Your task to perform on an android device: Do I have any events today? Image 0: 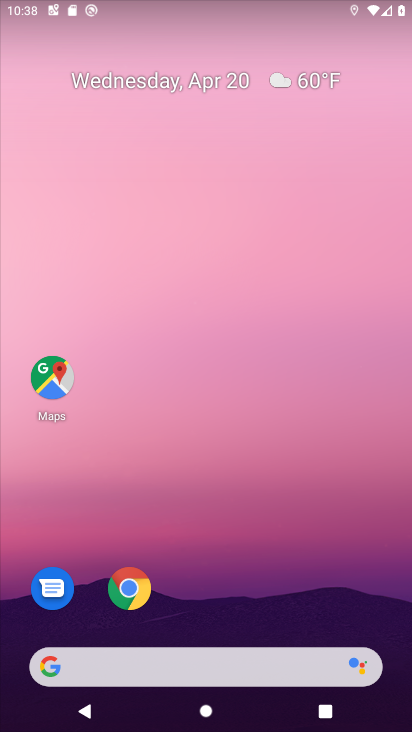
Step 0: drag from (203, 591) to (230, 62)
Your task to perform on an android device: Do I have any events today? Image 1: 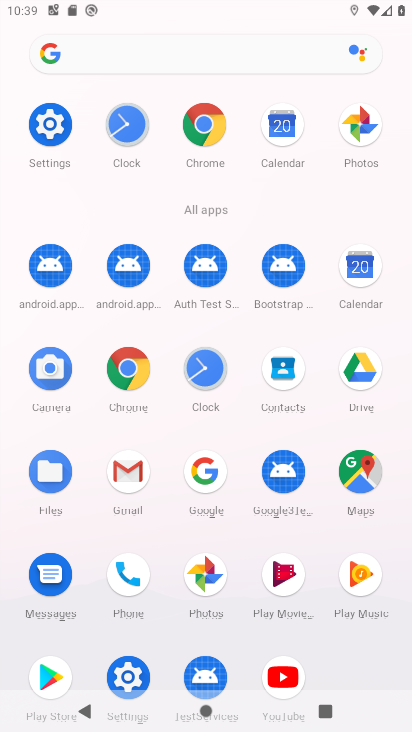
Step 1: click (365, 271)
Your task to perform on an android device: Do I have any events today? Image 2: 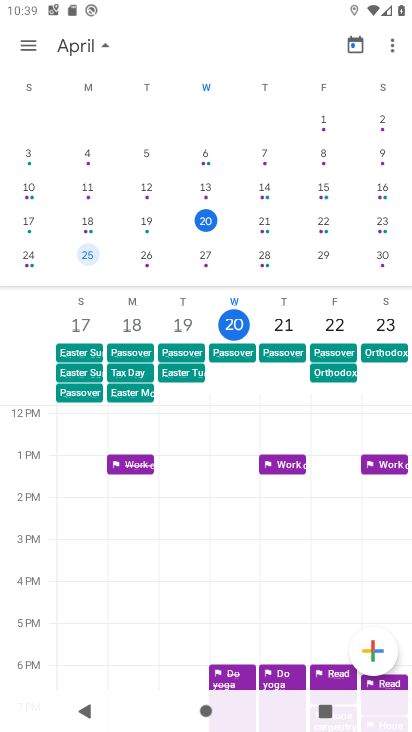
Step 2: click (26, 41)
Your task to perform on an android device: Do I have any events today? Image 3: 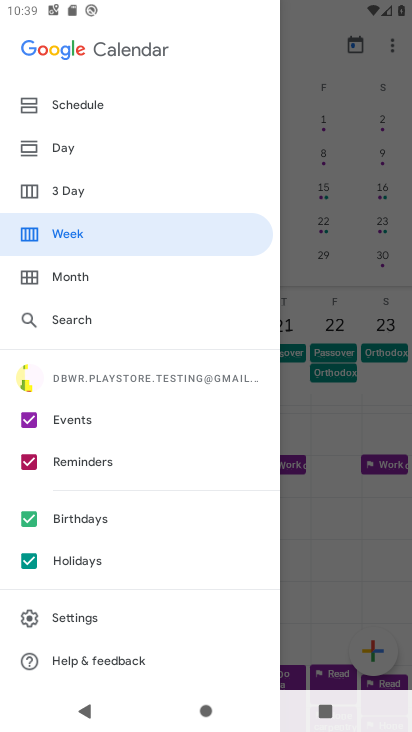
Step 3: click (70, 144)
Your task to perform on an android device: Do I have any events today? Image 4: 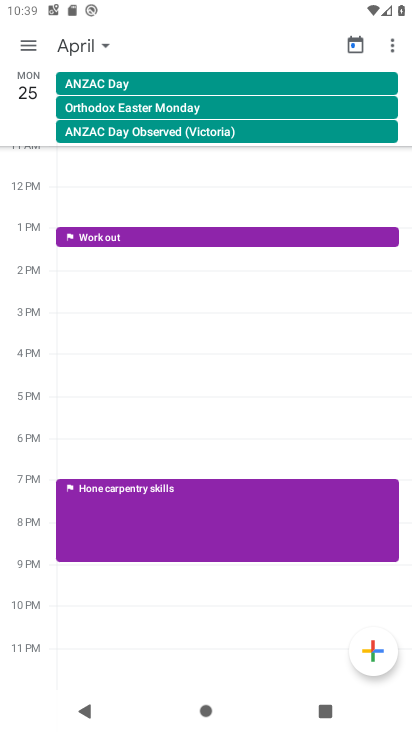
Step 4: click (101, 43)
Your task to perform on an android device: Do I have any events today? Image 5: 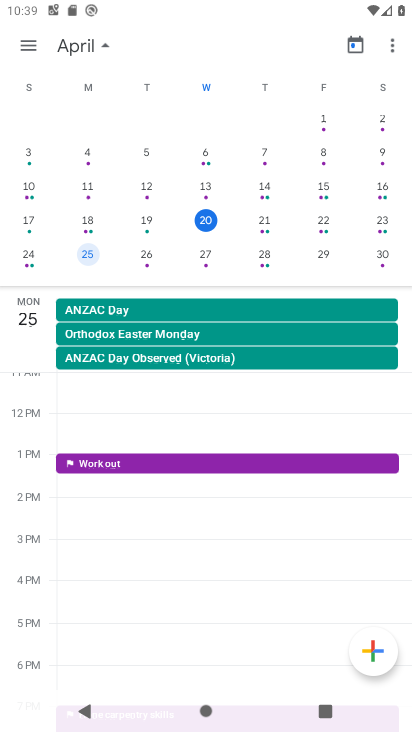
Step 5: click (203, 216)
Your task to perform on an android device: Do I have any events today? Image 6: 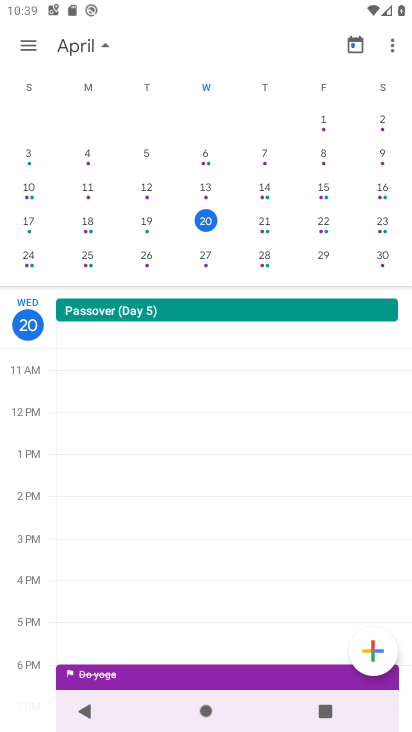
Step 6: task complete